Your task to perform on an android device: open chrome privacy settings Image 0: 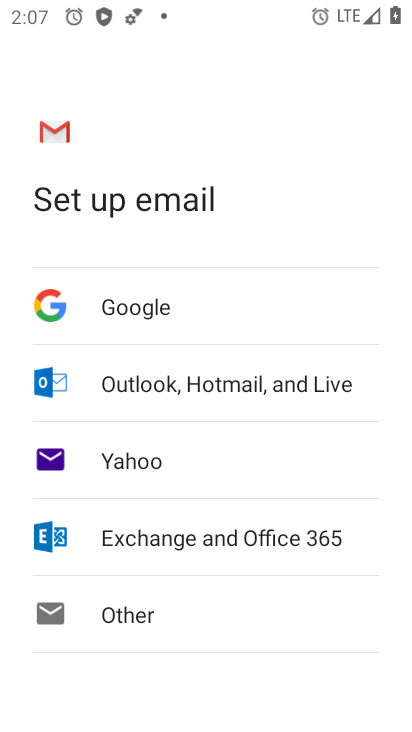
Step 0: press back button
Your task to perform on an android device: open chrome privacy settings Image 1: 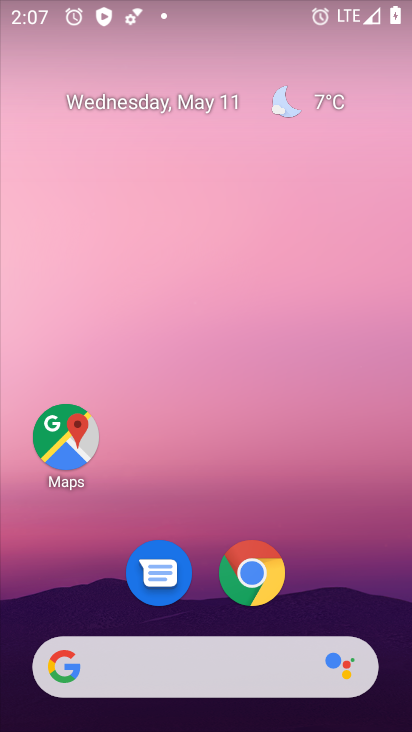
Step 1: click (247, 574)
Your task to perform on an android device: open chrome privacy settings Image 2: 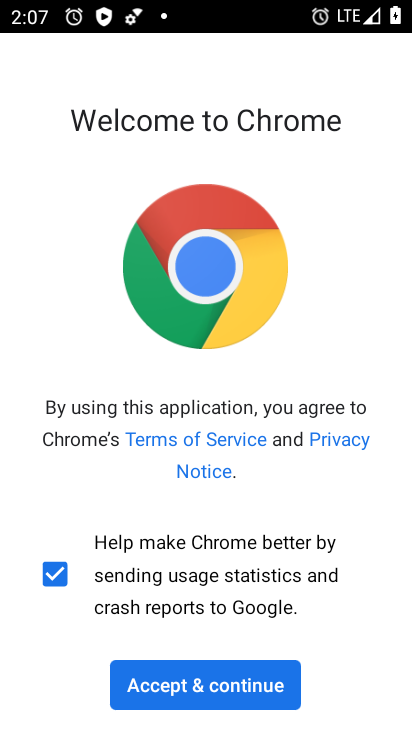
Step 2: click (229, 678)
Your task to perform on an android device: open chrome privacy settings Image 3: 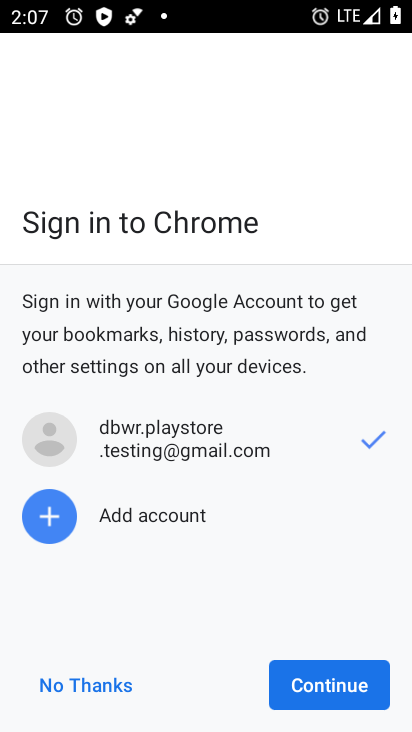
Step 3: click (305, 702)
Your task to perform on an android device: open chrome privacy settings Image 4: 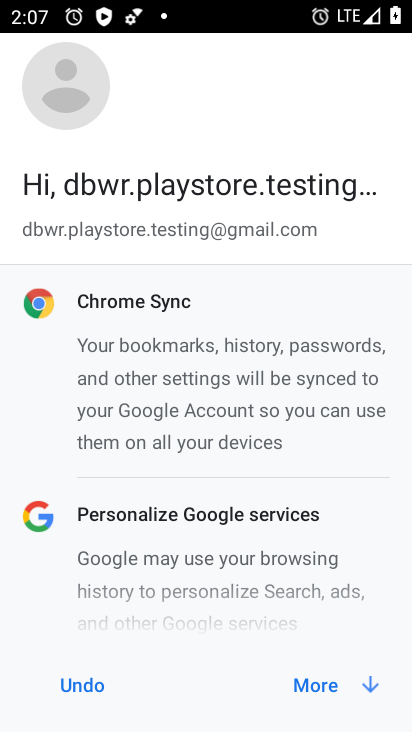
Step 4: click (370, 698)
Your task to perform on an android device: open chrome privacy settings Image 5: 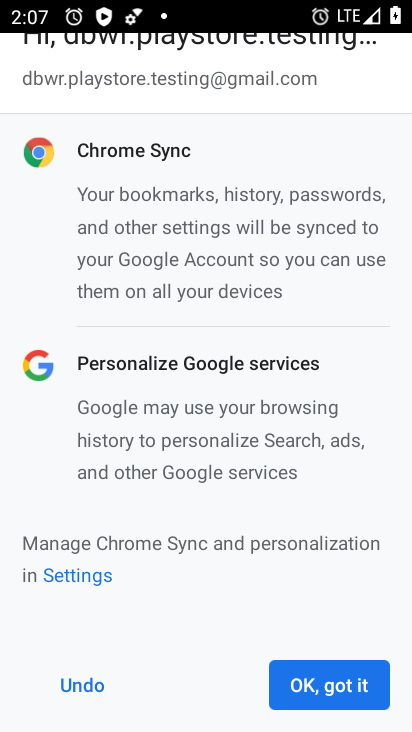
Step 5: click (360, 695)
Your task to perform on an android device: open chrome privacy settings Image 6: 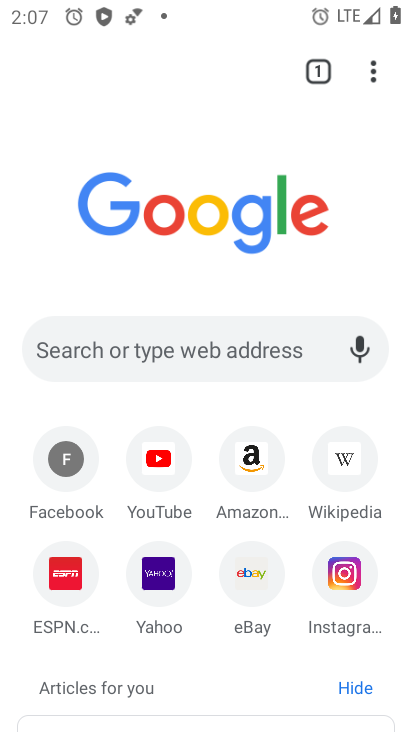
Step 6: drag from (386, 108) to (267, 599)
Your task to perform on an android device: open chrome privacy settings Image 7: 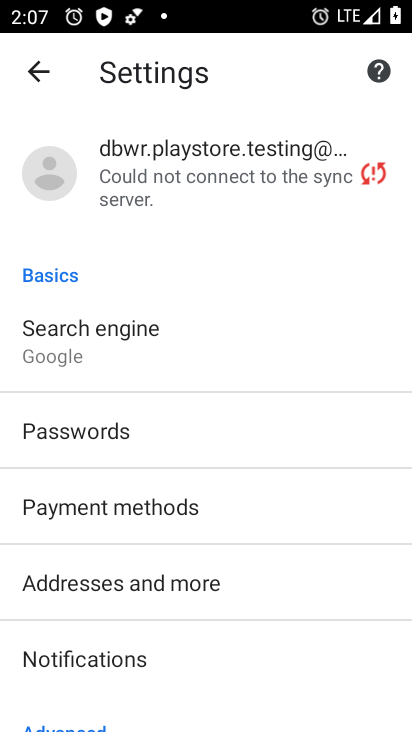
Step 7: drag from (205, 673) to (291, 326)
Your task to perform on an android device: open chrome privacy settings Image 8: 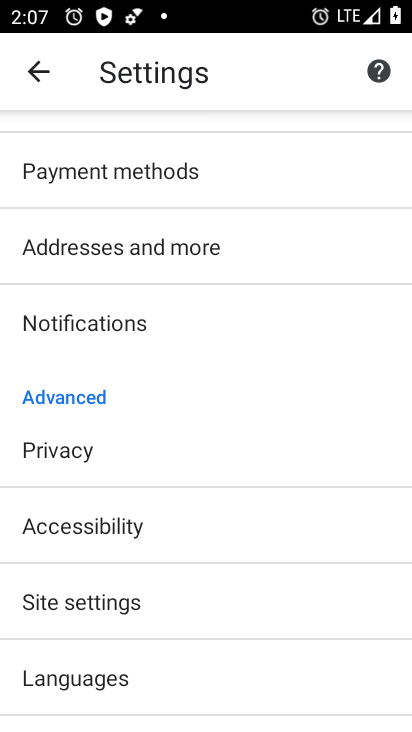
Step 8: drag from (198, 676) to (242, 488)
Your task to perform on an android device: open chrome privacy settings Image 9: 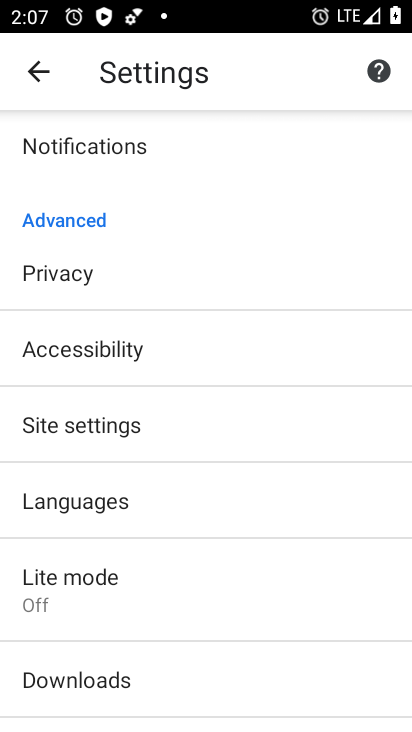
Step 9: click (186, 291)
Your task to perform on an android device: open chrome privacy settings Image 10: 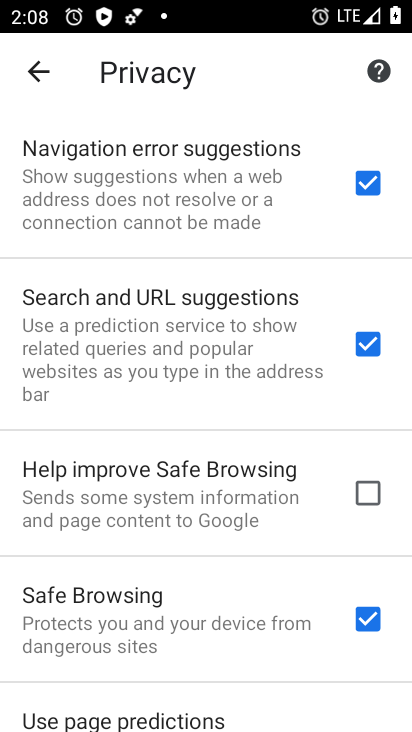
Step 10: task complete